Your task to perform on an android device: Open Youtube and go to the subscriptions tab Image 0: 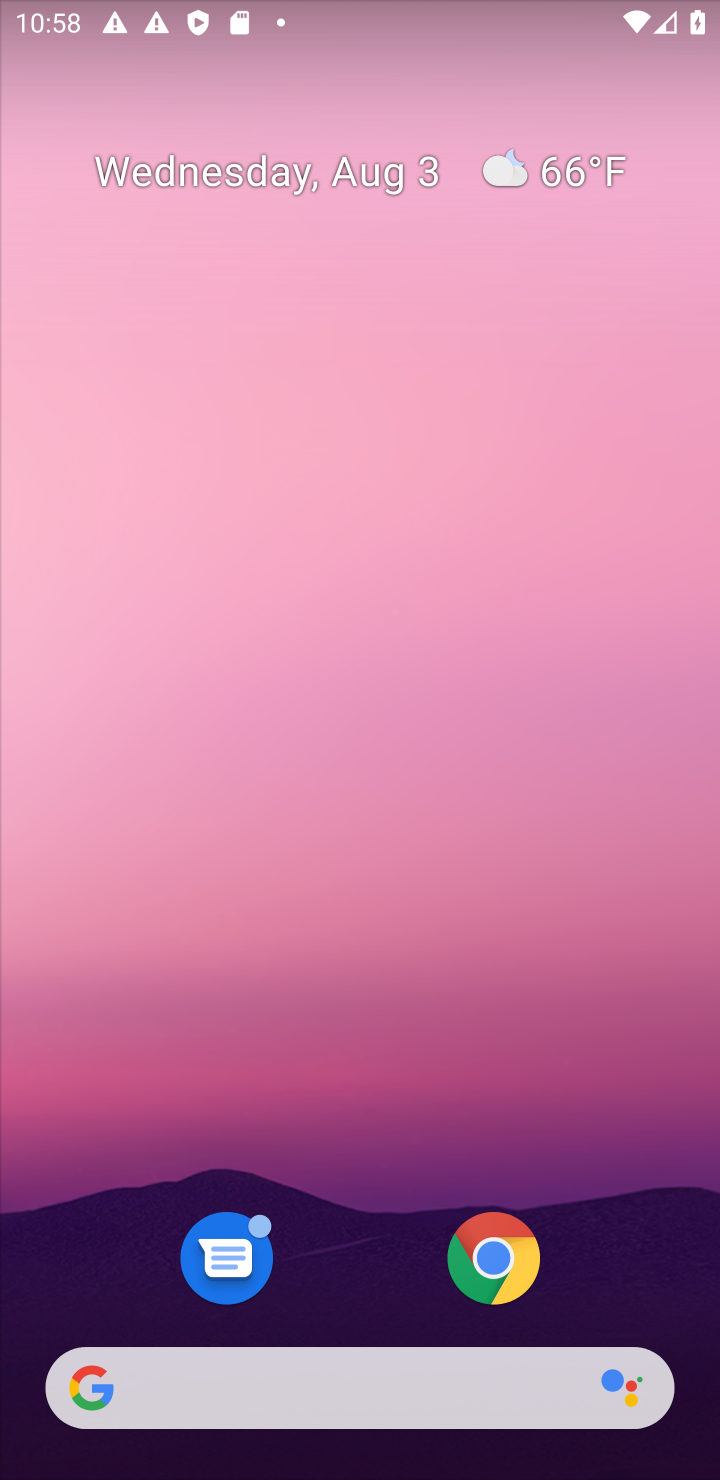
Step 0: drag from (386, 1274) to (442, 280)
Your task to perform on an android device: Open Youtube and go to the subscriptions tab Image 1: 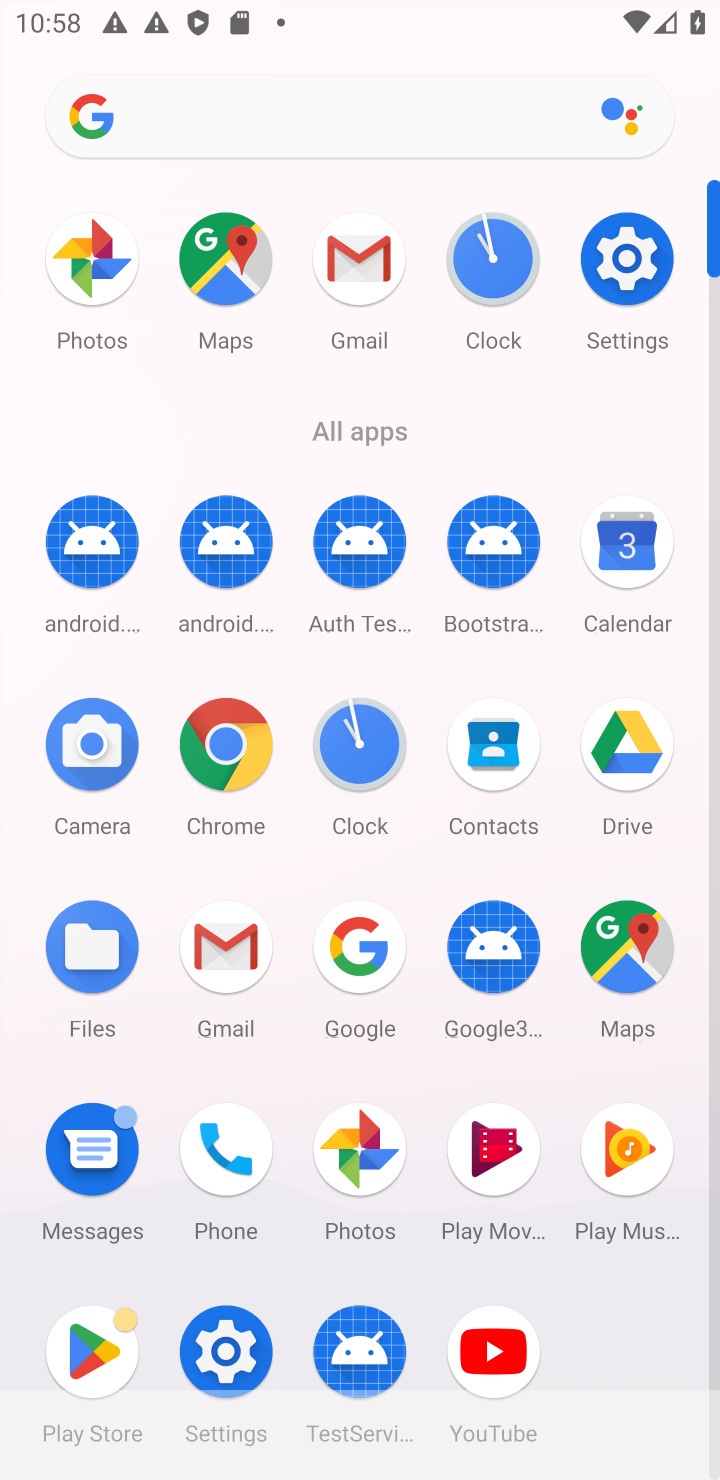
Step 1: click (489, 1353)
Your task to perform on an android device: Open Youtube and go to the subscriptions tab Image 2: 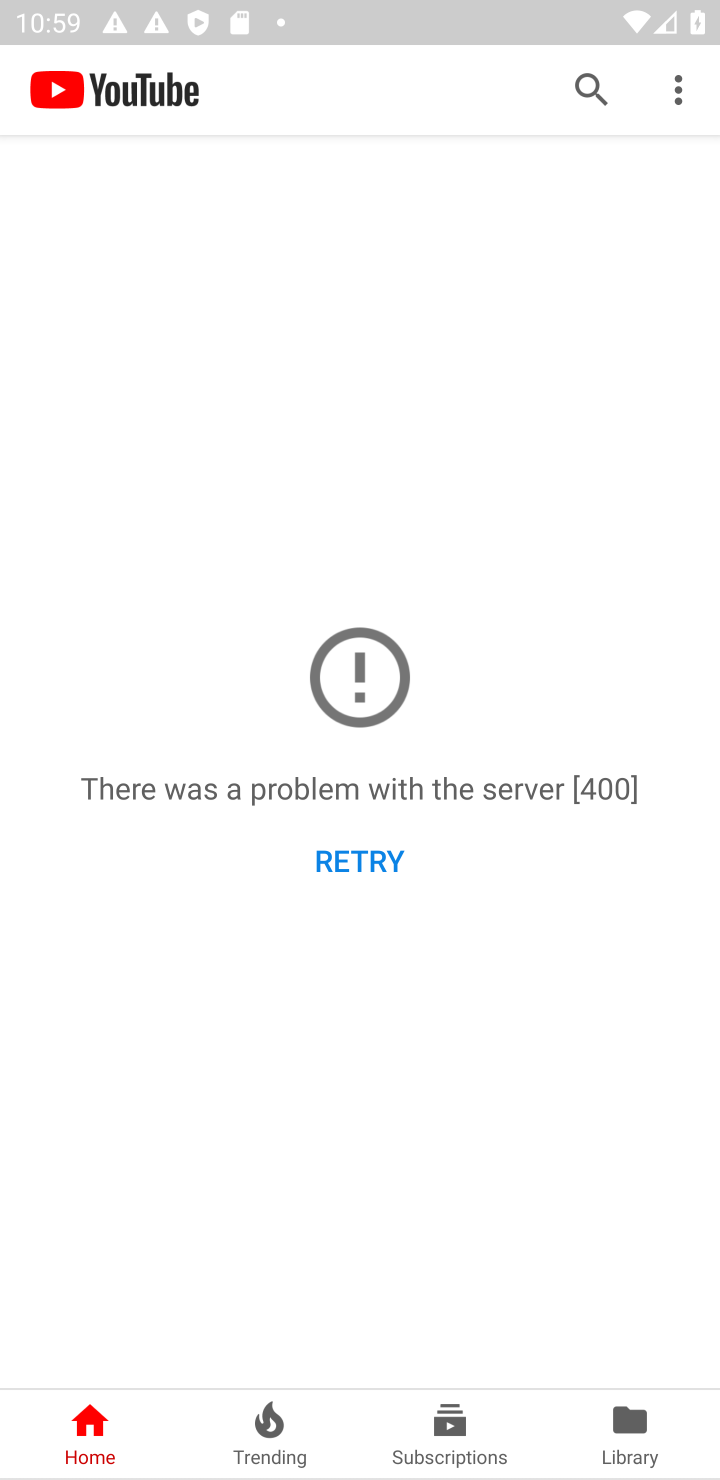
Step 2: click (448, 1420)
Your task to perform on an android device: Open Youtube and go to the subscriptions tab Image 3: 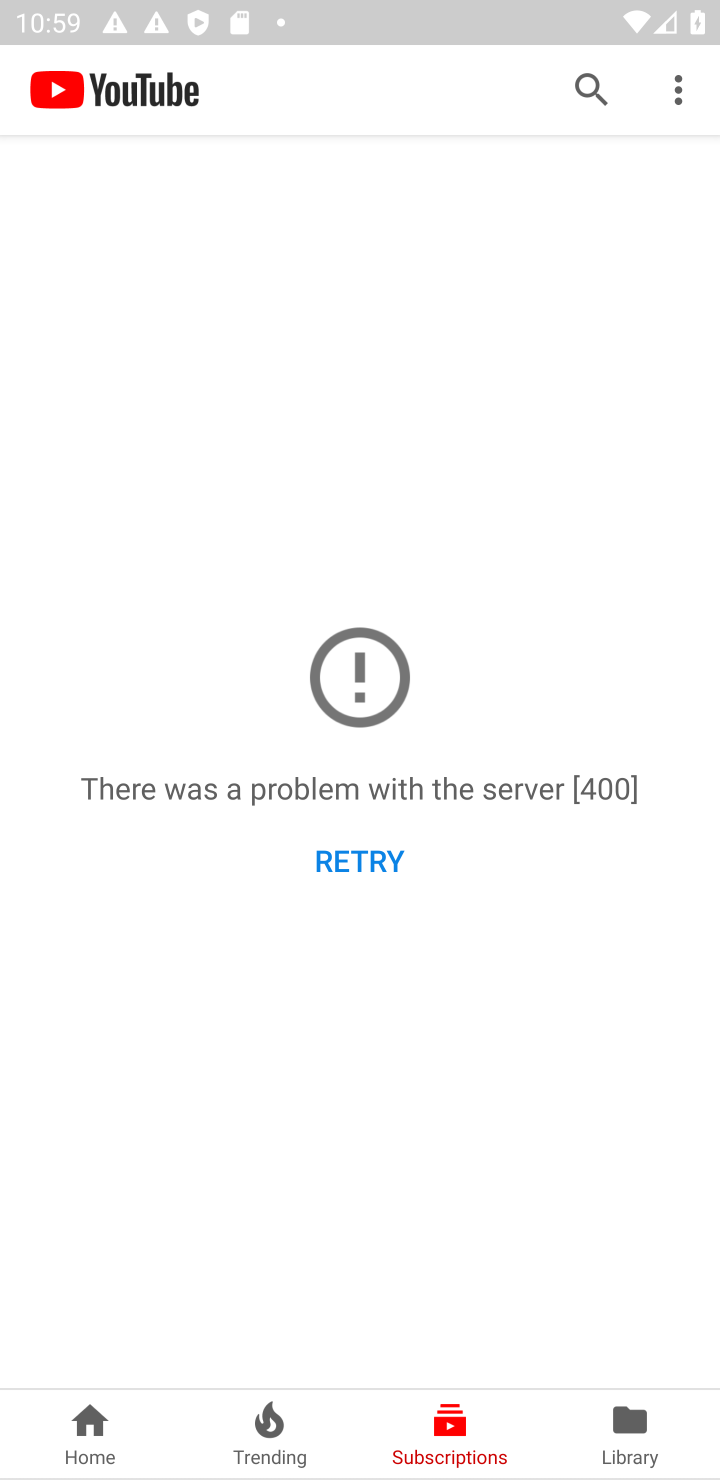
Step 3: task complete